Your task to perform on an android device: make emails show in primary in the gmail app Image 0: 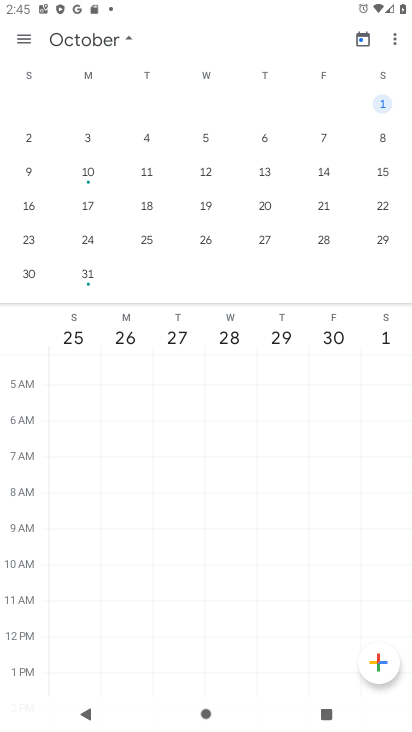
Step 0: press home button
Your task to perform on an android device: make emails show in primary in the gmail app Image 1: 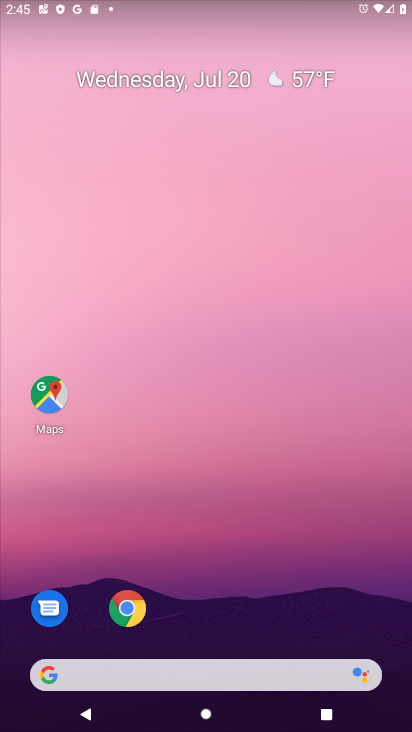
Step 1: drag from (193, 299) to (193, 58)
Your task to perform on an android device: make emails show in primary in the gmail app Image 2: 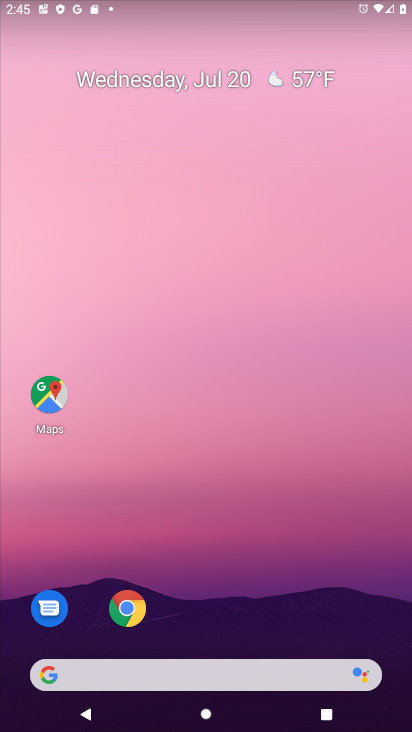
Step 2: drag from (192, 593) to (145, 56)
Your task to perform on an android device: make emails show in primary in the gmail app Image 3: 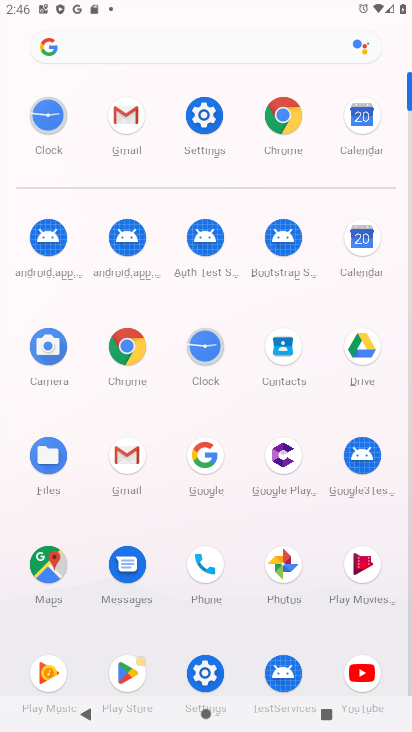
Step 3: click (125, 127)
Your task to perform on an android device: make emails show in primary in the gmail app Image 4: 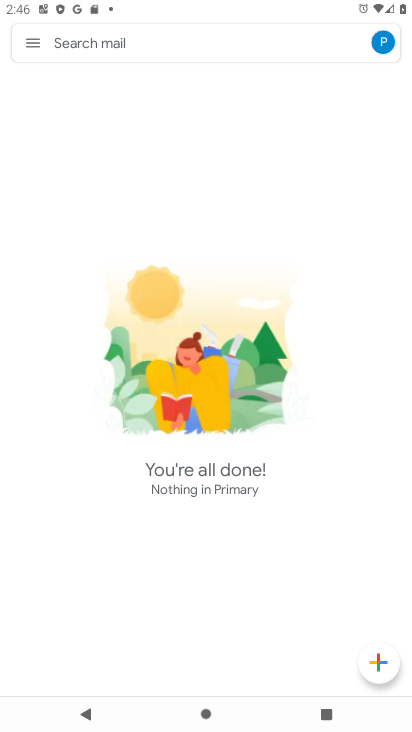
Step 4: click (25, 48)
Your task to perform on an android device: make emails show in primary in the gmail app Image 5: 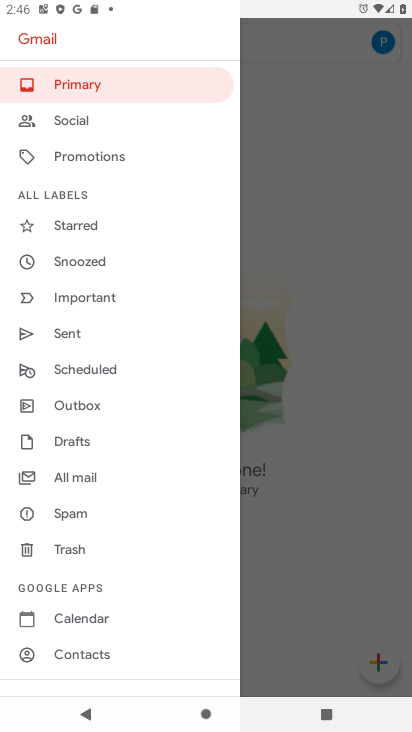
Step 5: drag from (97, 644) to (90, 298)
Your task to perform on an android device: make emails show in primary in the gmail app Image 6: 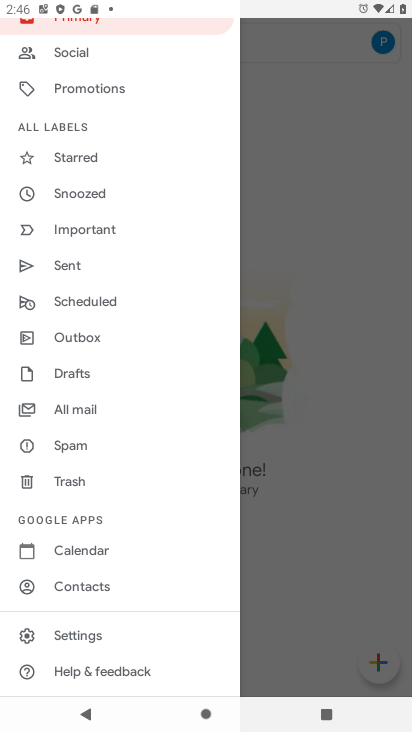
Step 6: click (85, 640)
Your task to perform on an android device: make emails show in primary in the gmail app Image 7: 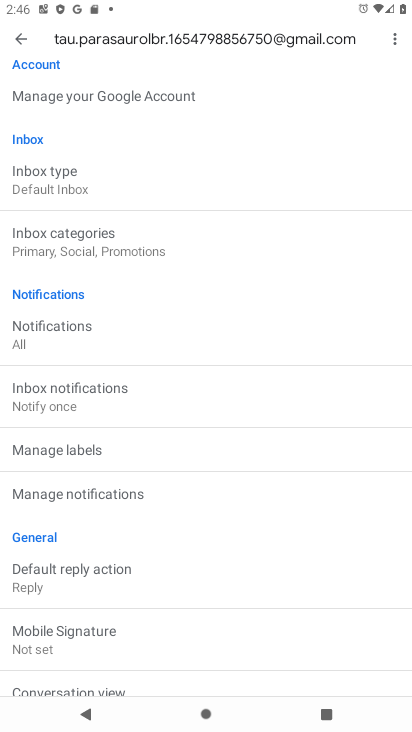
Step 7: click (45, 190)
Your task to perform on an android device: make emails show in primary in the gmail app Image 8: 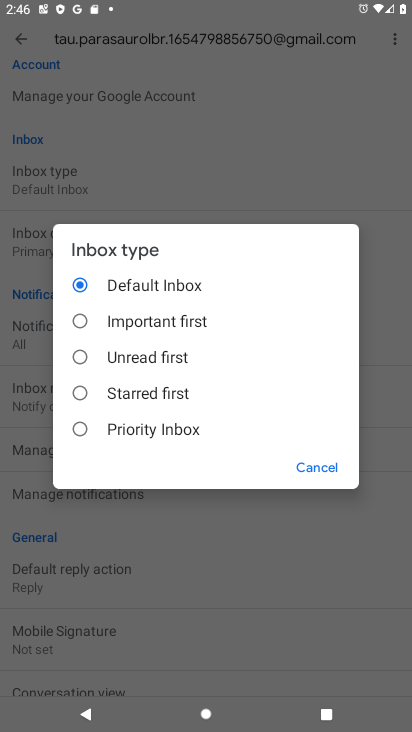
Step 8: click (316, 478)
Your task to perform on an android device: make emails show in primary in the gmail app Image 9: 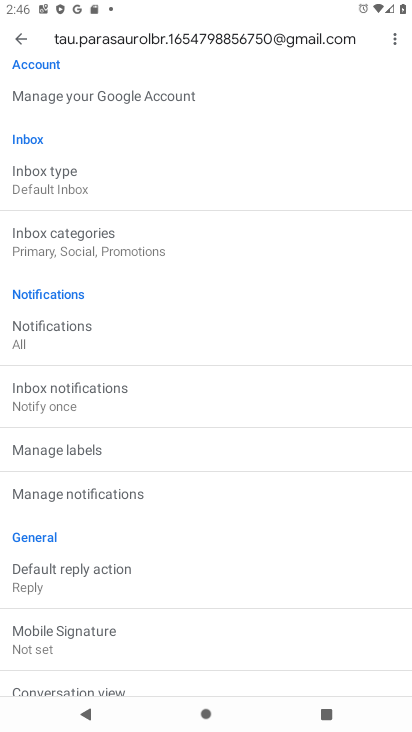
Step 9: click (74, 243)
Your task to perform on an android device: make emails show in primary in the gmail app Image 10: 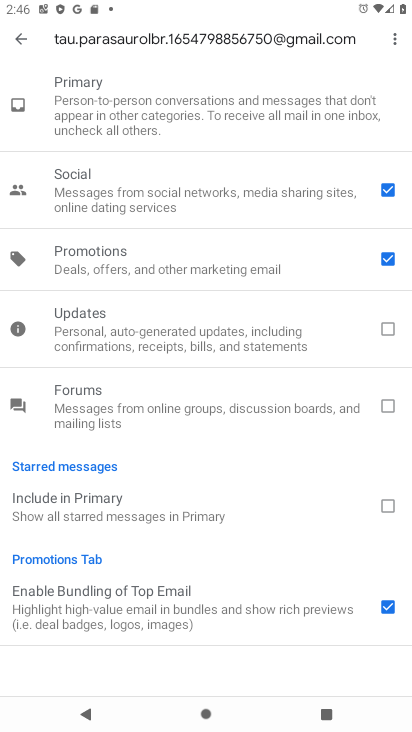
Step 10: click (383, 257)
Your task to perform on an android device: make emails show in primary in the gmail app Image 11: 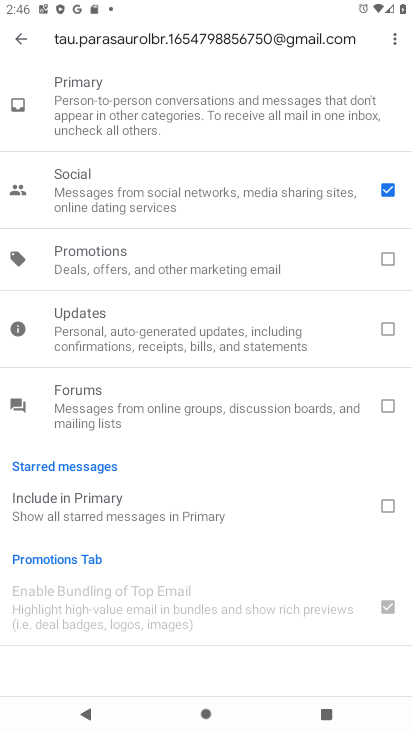
Step 11: click (388, 187)
Your task to perform on an android device: make emails show in primary in the gmail app Image 12: 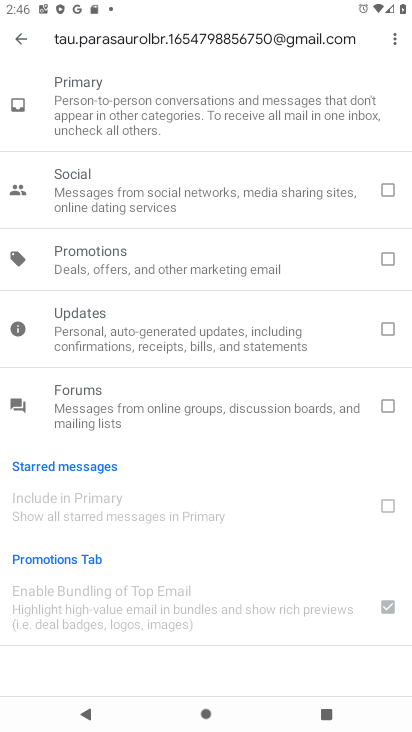
Step 12: click (15, 32)
Your task to perform on an android device: make emails show in primary in the gmail app Image 13: 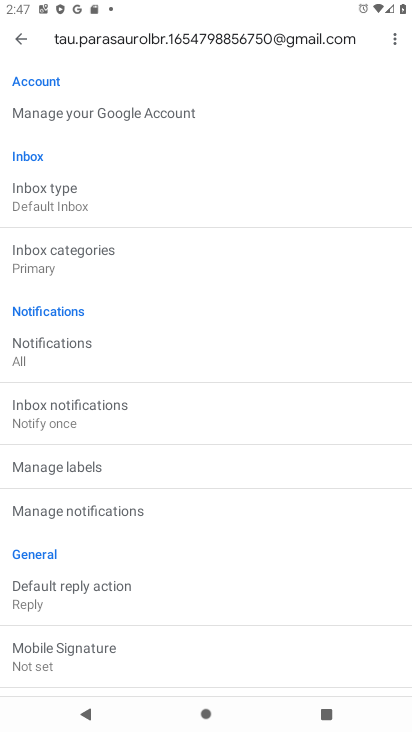
Step 13: task complete